Your task to perform on an android device: turn on bluetooth scan Image 0: 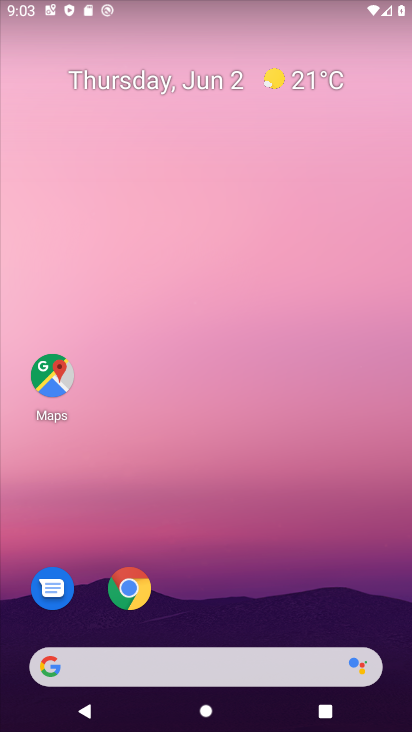
Step 0: drag from (212, 661) to (200, 189)
Your task to perform on an android device: turn on bluetooth scan Image 1: 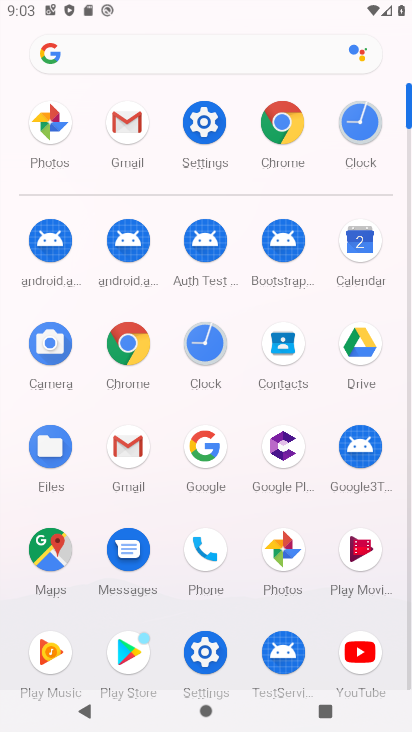
Step 1: click (209, 121)
Your task to perform on an android device: turn on bluetooth scan Image 2: 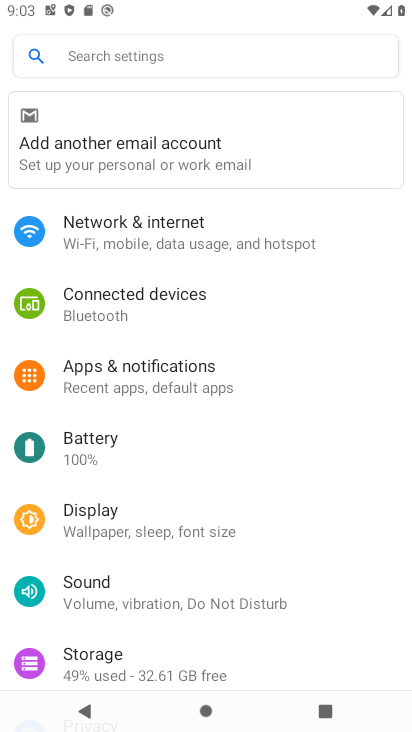
Step 2: drag from (120, 643) to (181, 109)
Your task to perform on an android device: turn on bluetooth scan Image 3: 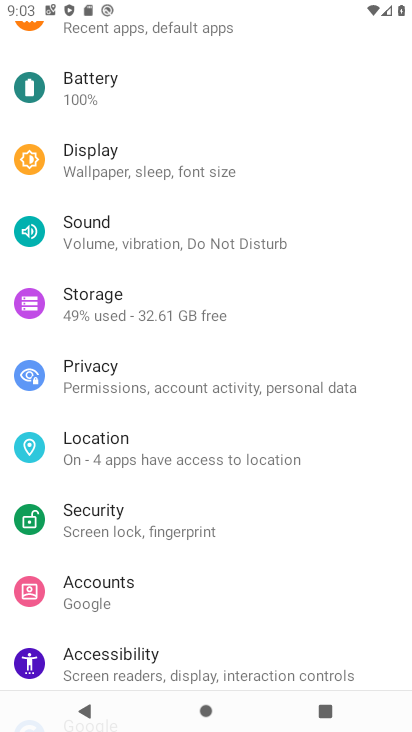
Step 3: click (162, 462)
Your task to perform on an android device: turn on bluetooth scan Image 4: 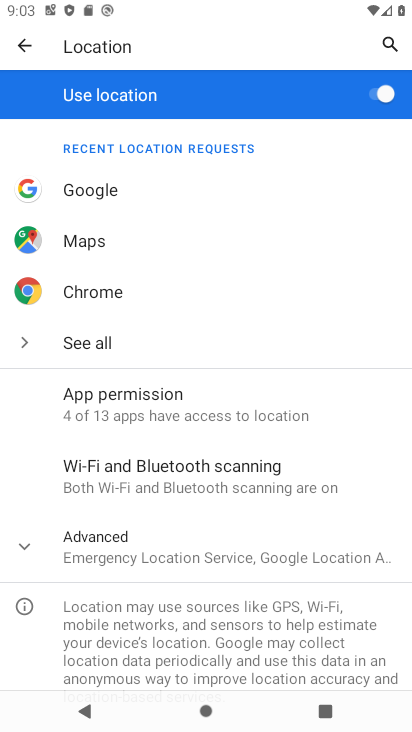
Step 4: click (162, 462)
Your task to perform on an android device: turn on bluetooth scan Image 5: 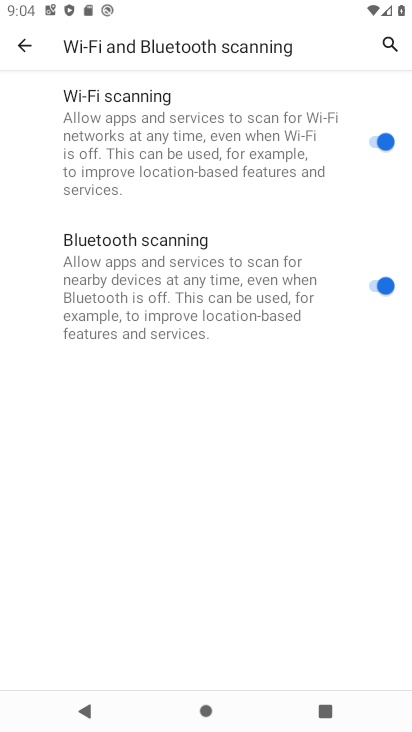
Step 5: task complete